Your task to perform on an android device: turn off notifications in google photos Image 0: 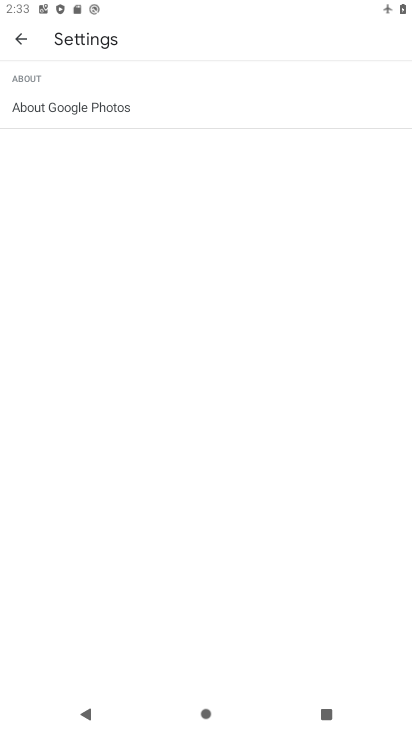
Step 0: press back button
Your task to perform on an android device: turn off notifications in google photos Image 1: 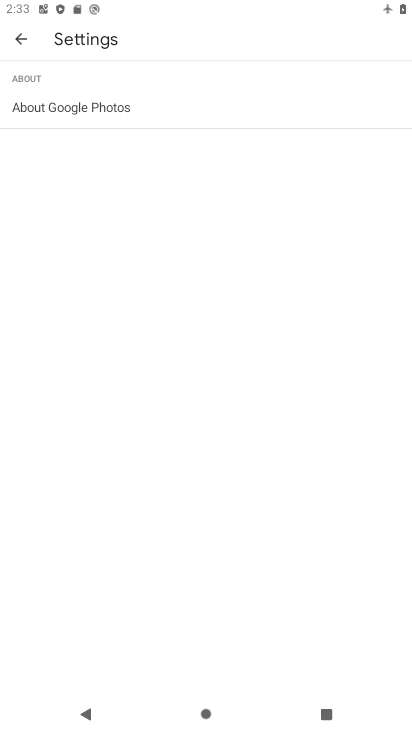
Step 1: press home button
Your task to perform on an android device: turn off notifications in google photos Image 2: 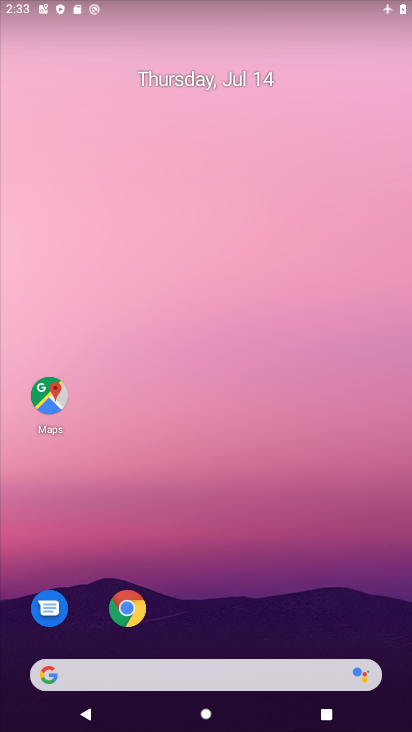
Step 2: drag from (228, 609) to (250, 22)
Your task to perform on an android device: turn off notifications in google photos Image 3: 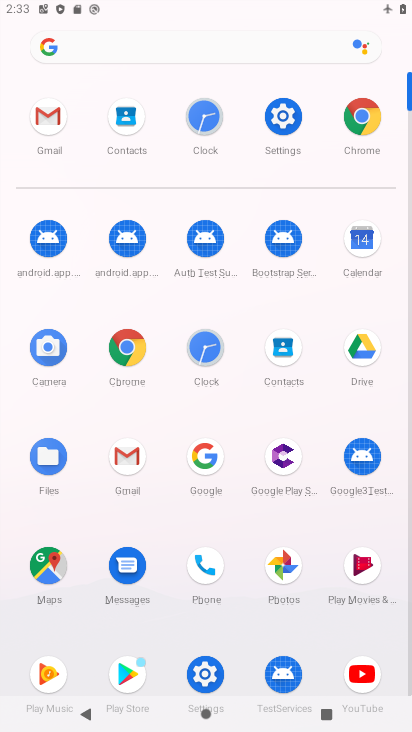
Step 3: click (288, 559)
Your task to perform on an android device: turn off notifications in google photos Image 4: 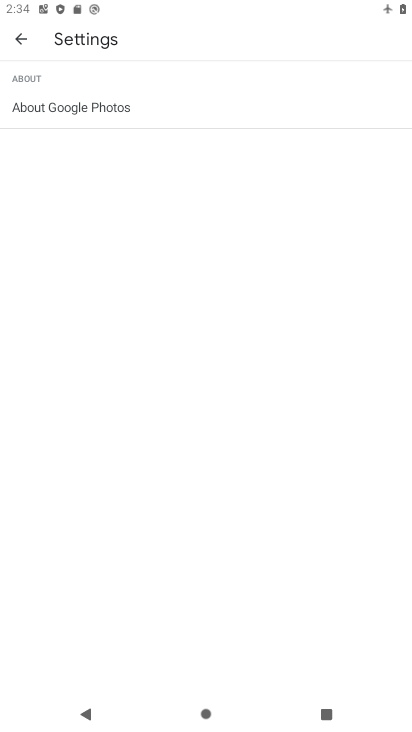
Step 4: press back button
Your task to perform on an android device: turn off notifications in google photos Image 5: 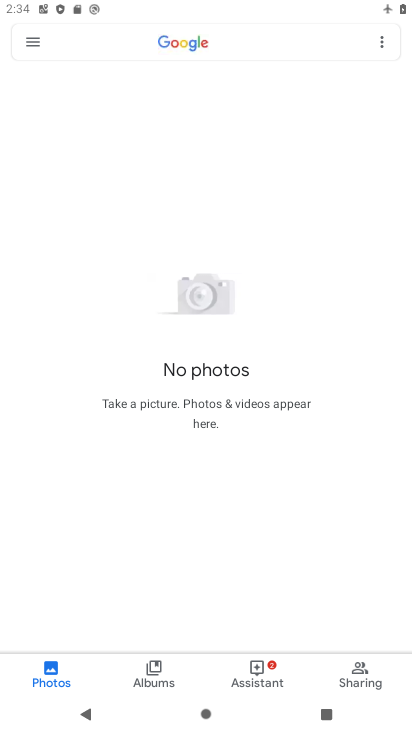
Step 5: click (37, 45)
Your task to perform on an android device: turn off notifications in google photos Image 6: 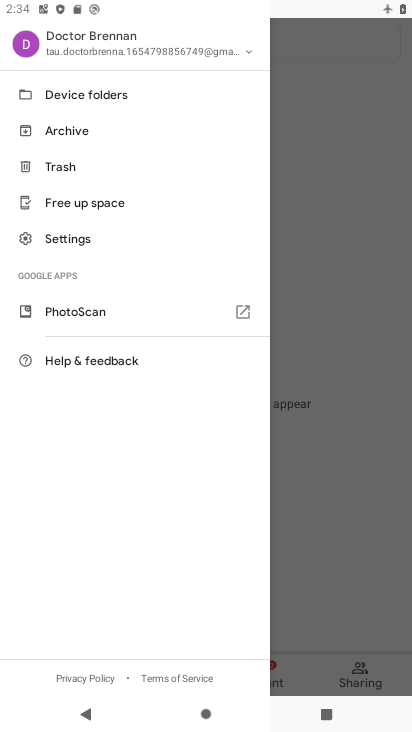
Step 6: click (85, 236)
Your task to perform on an android device: turn off notifications in google photos Image 7: 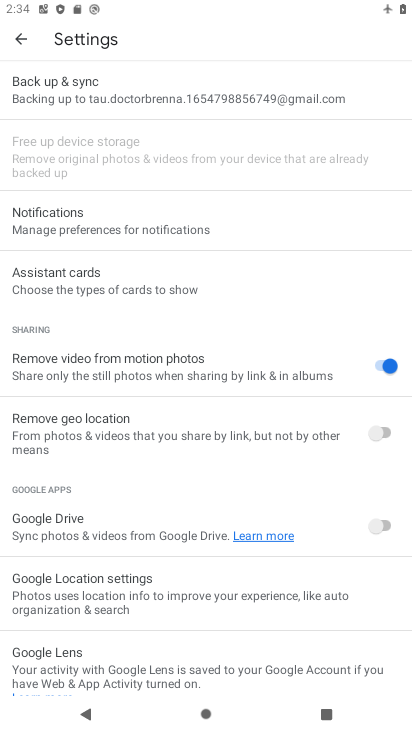
Step 7: click (147, 226)
Your task to perform on an android device: turn off notifications in google photos Image 8: 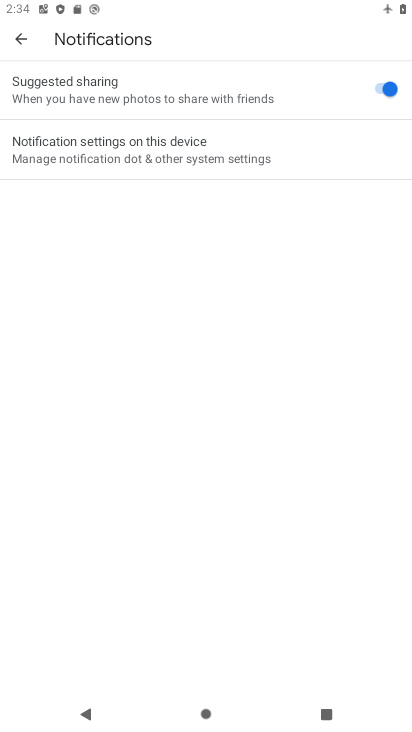
Step 8: click (160, 141)
Your task to perform on an android device: turn off notifications in google photos Image 9: 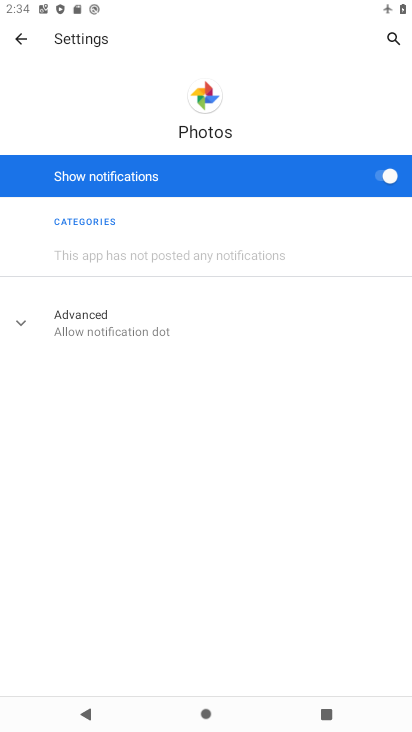
Step 9: click (375, 173)
Your task to perform on an android device: turn off notifications in google photos Image 10: 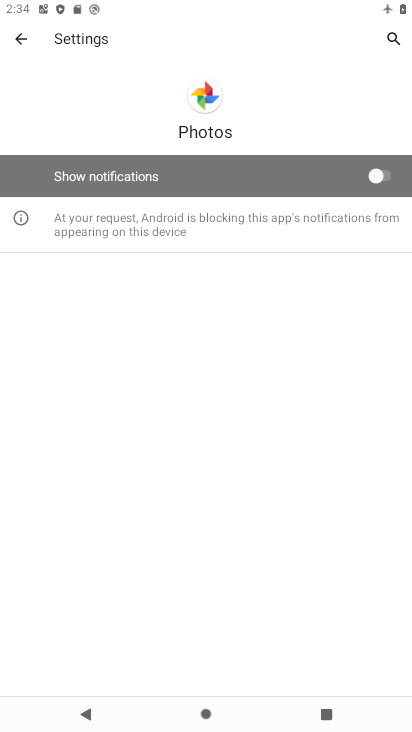
Step 10: task complete